Your task to perform on an android device: Open the map Image 0: 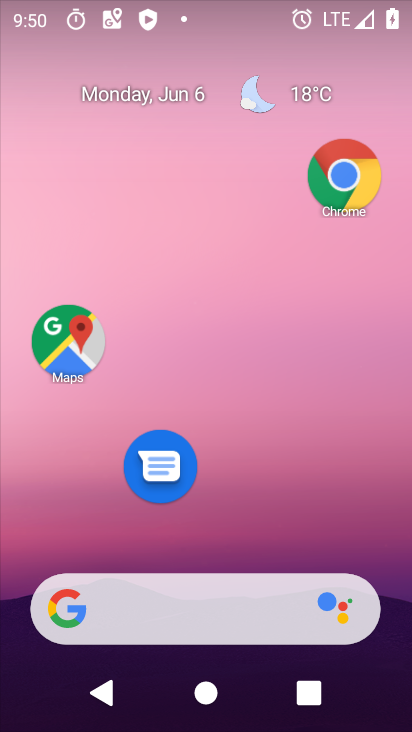
Step 0: drag from (221, 505) to (260, 113)
Your task to perform on an android device: Open the map Image 1: 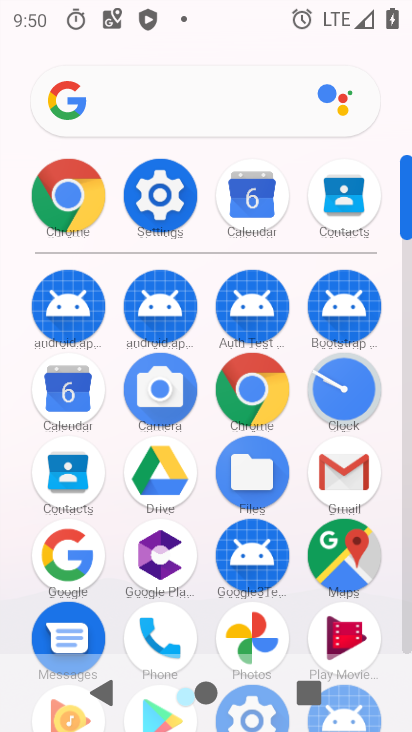
Step 1: click (339, 558)
Your task to perform on an android device: Open the map Image 2: 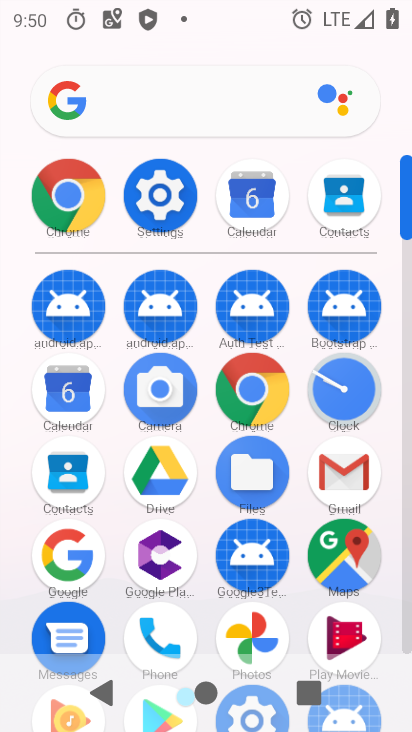
Step 2: click (338, 557)
Your task to perform on an android device: Open the map Image 3: 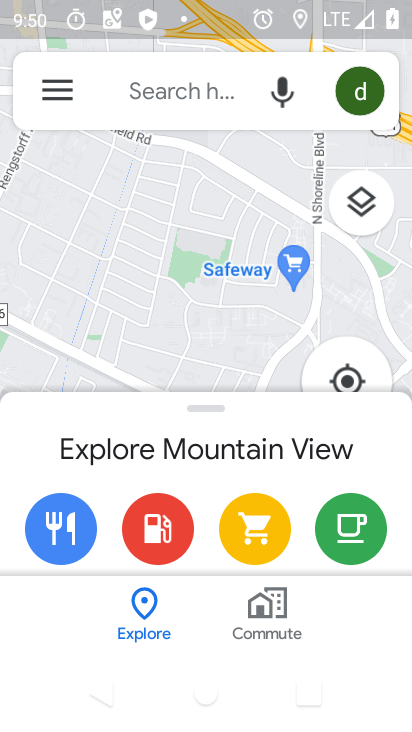
Step 3: task complete